Your task to perform on an android device: open app "Pinterest" (install if not already installed) and enter user name: "Switzerland@yahoo.com" and password: "arithmetics" Image 0: 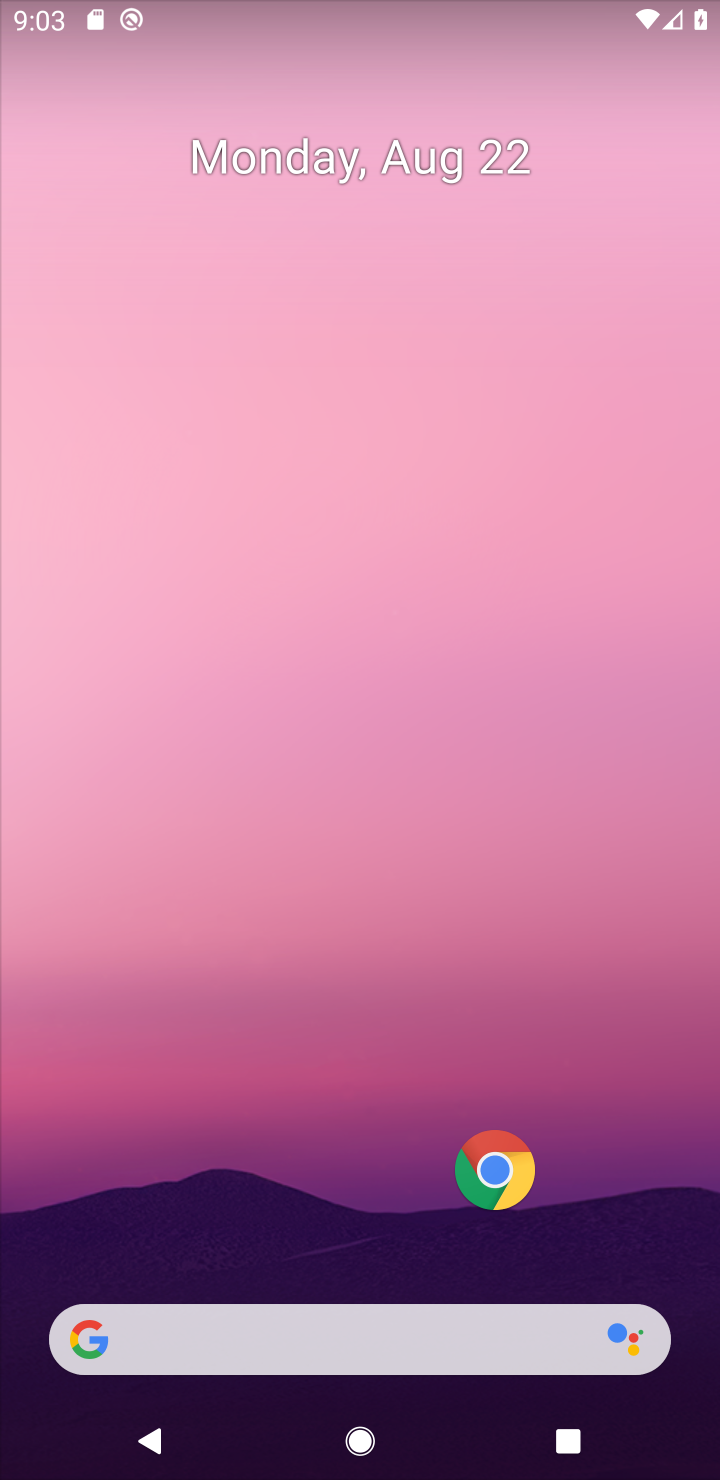
Step 0: drag from (261, 1249) to (422, 92)
Your task to perform on an android device: open app "Pinterest" (install if not already installed) and enter user name: "Switzerland@yahoo.com" and password: "arithmetics" Image 1: 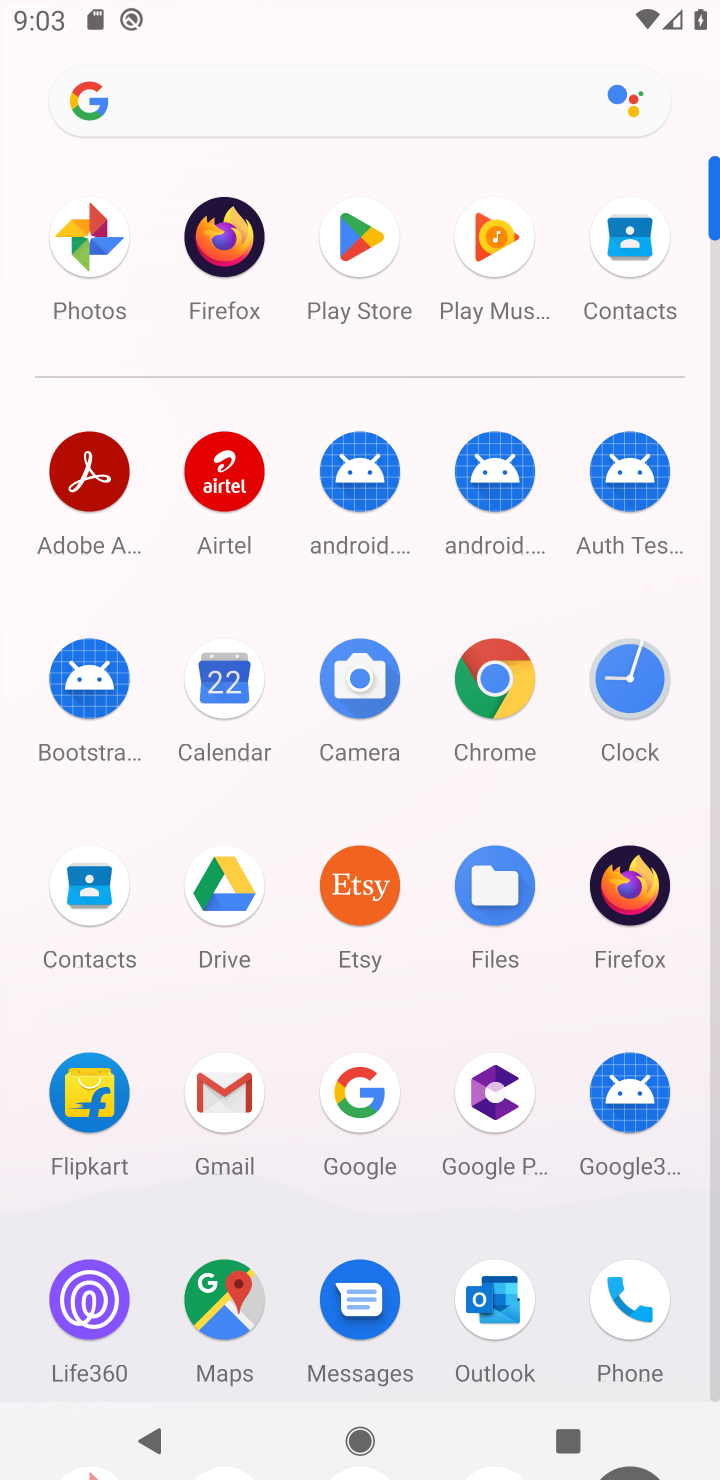
Step 1: click (333, 240)
Your task to perform on an android device: open app "Pinterest" (install if not already installed) and enter user name: "Switzerland@yahoo.com" and password: "arithmetics" Image 2: 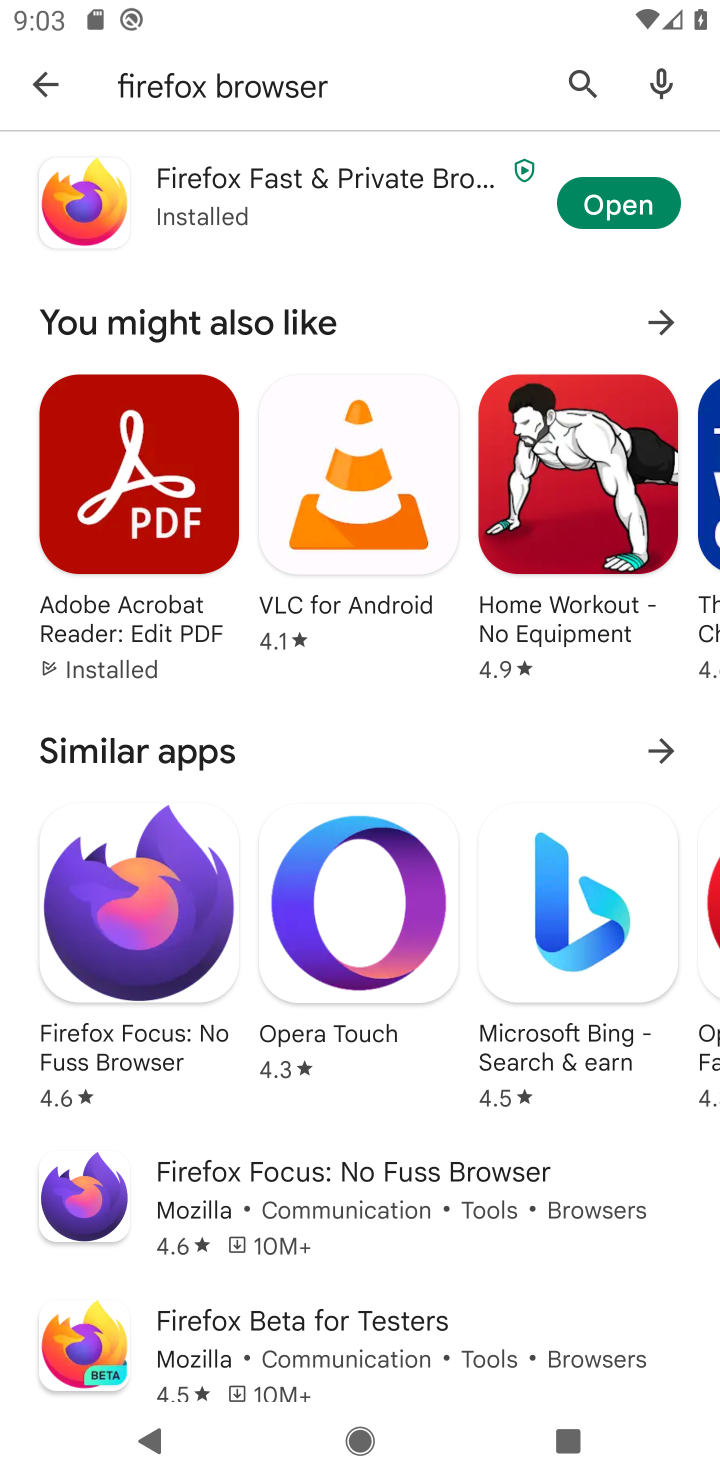
Step 2: click (565, 74)
Your task to perform on an android device: open app "Pinterest" (install if not already installed) and enter user name: "Switzerland@yahoo.com" and password: "arithmetics" Image 3: 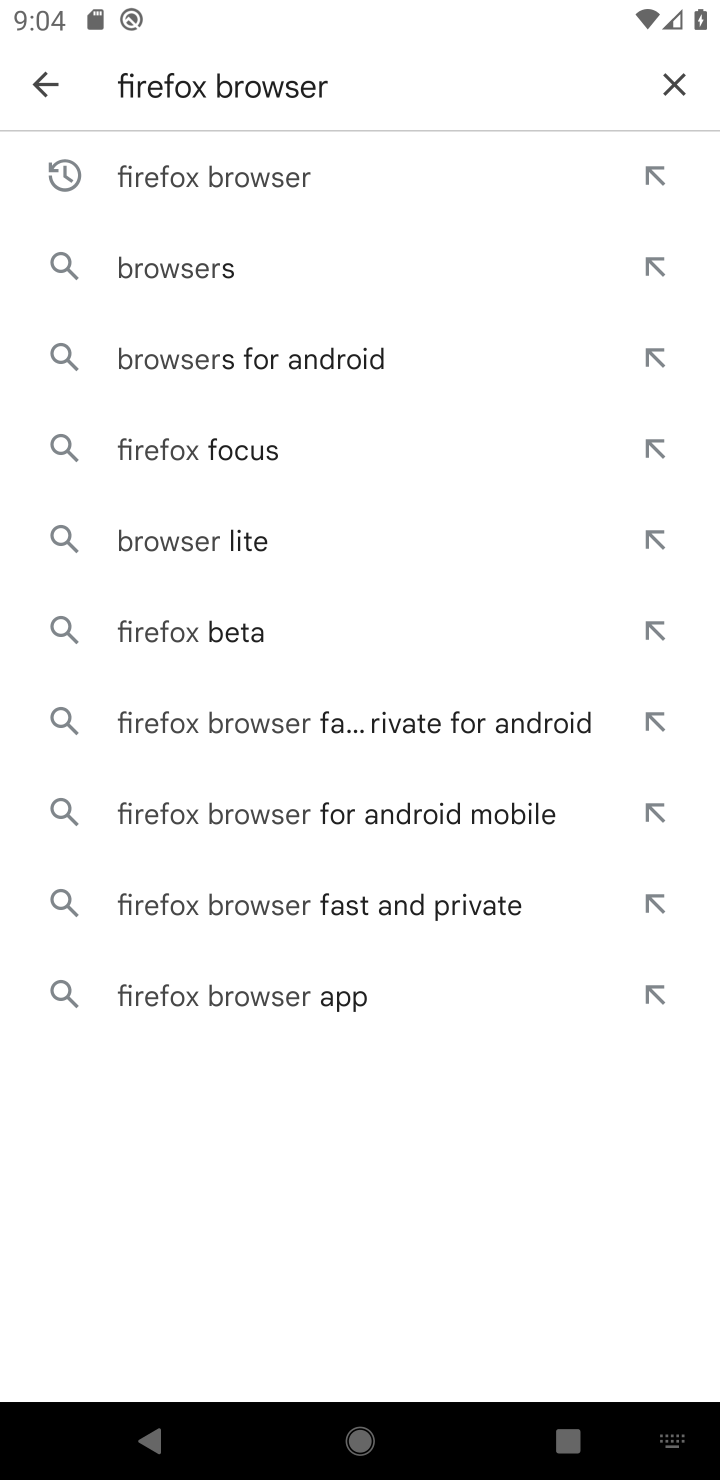
Step 3: click (659, 81)
Your task to perform on an android device: open app "Pinterest" (install if not already installed) and enter user name: "Switzerland@yahoo.com" and password: "arithmetics" Image 4: 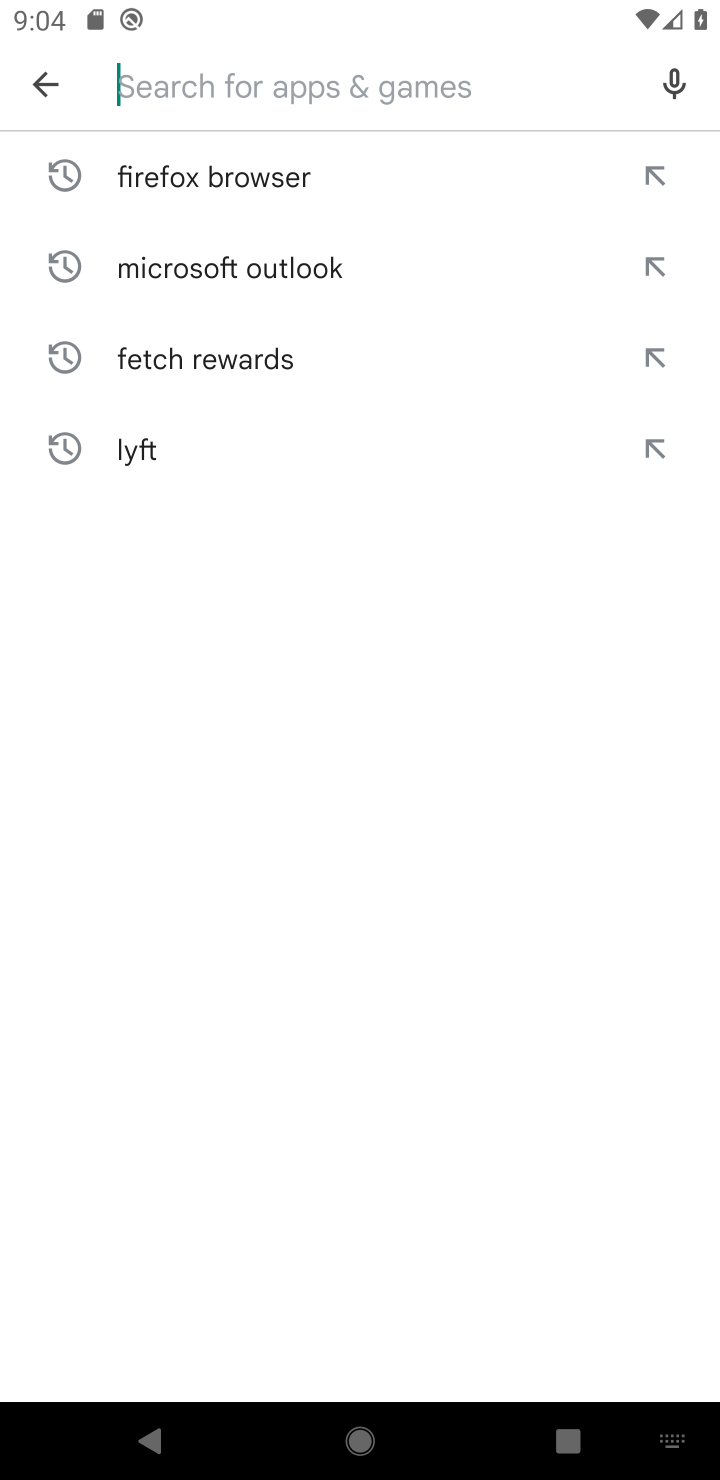
Step 4: click (400, 84)
Your task to perform on an android device: open app "Pinterest" (install if not already installed) and enter user name: "Switzerland@yahoo.com" and password: "arithmetics" Image 5: 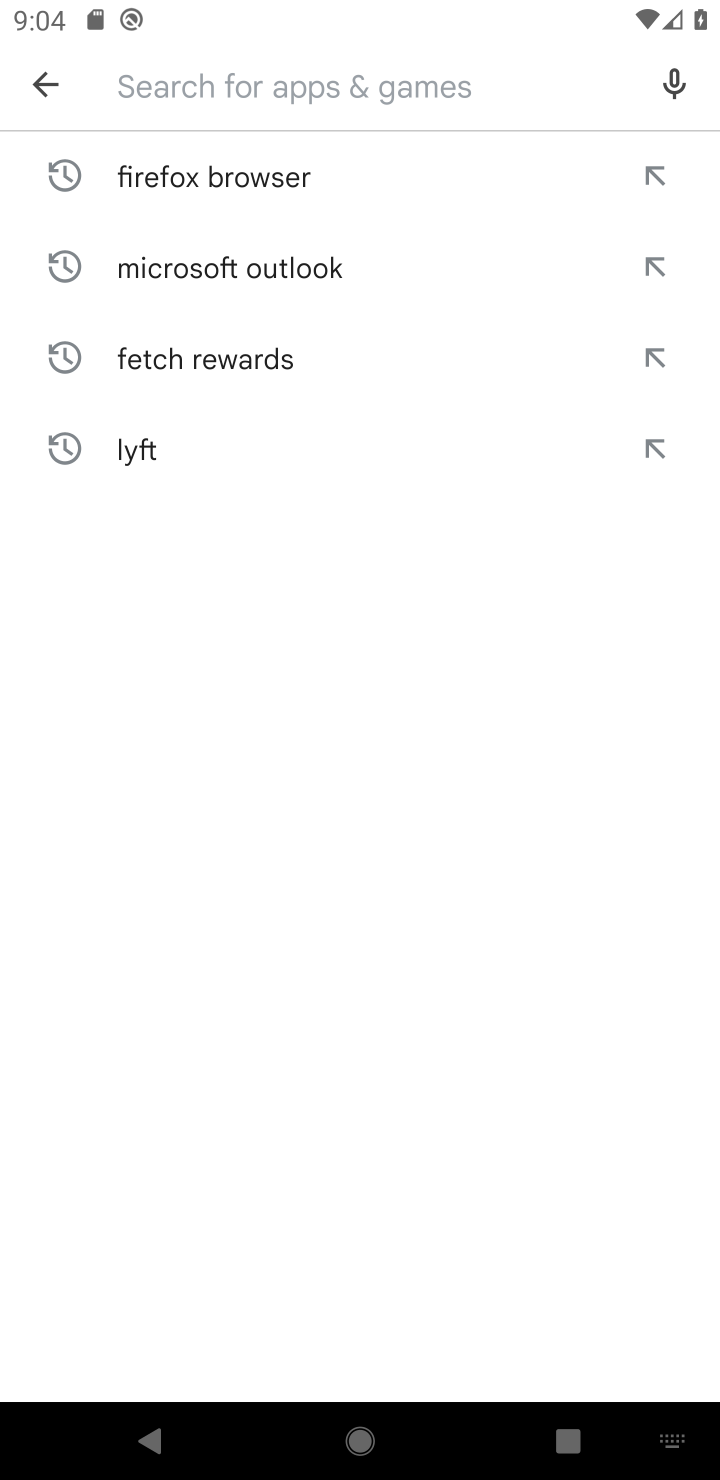
Step 5: type "Pinterest"
Your task to perform on an android device: open app "Pinterest" (install if not already installed) and enter user name: "Switzerland@yahoo.com" and password: "arithmetics" Image 6: 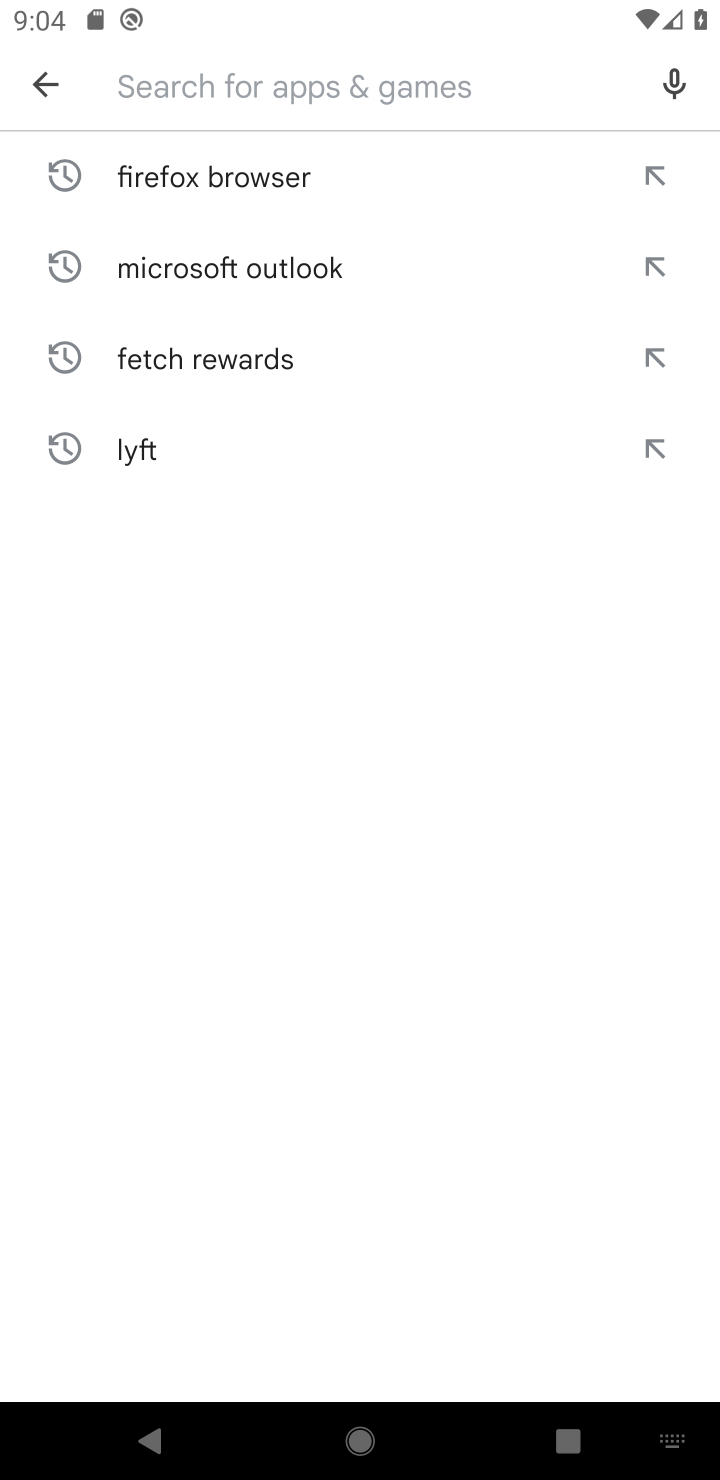
Step 6: click (389, 925)
Your task to perform on an android device: open app "Pinterest" (install if not already installed) and enter user name: "Switzerland@yahoo.com" and password: "arithmetics" Image 7: 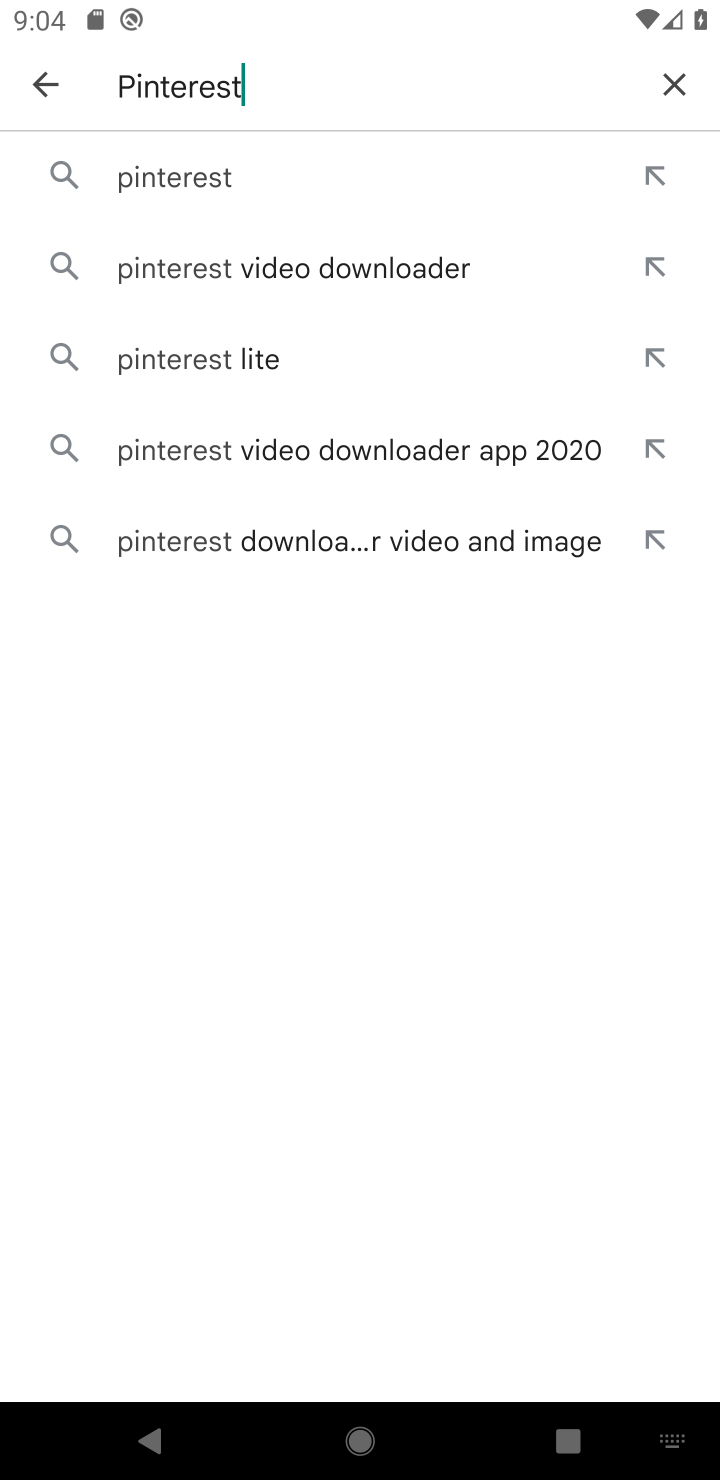
Step 7: click (181, 166)
Your task to perform on an android device: open app "Pinterest" (install if not already installed) and enter user name: "Switzerland@yahoo.com" and password: "arithmetics" Image 8: 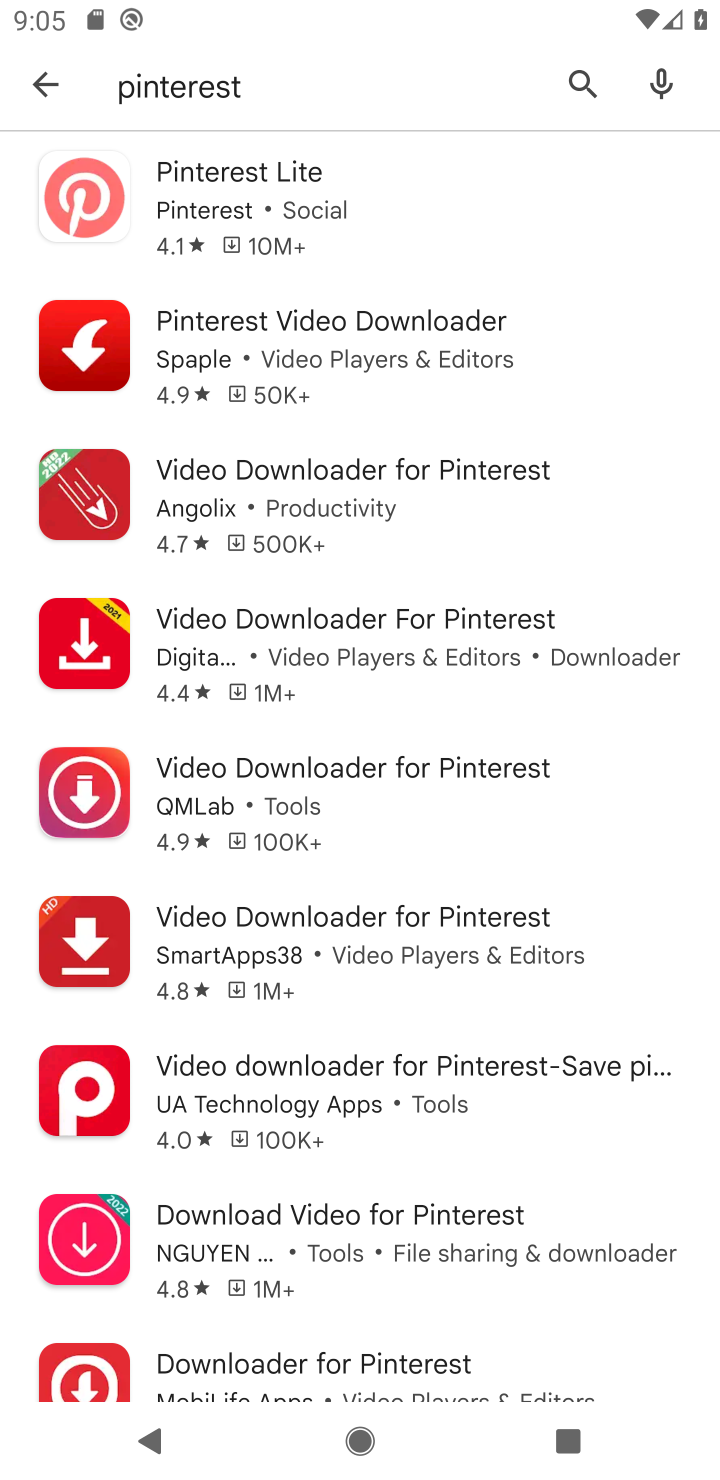
Step 8: click (392, 199)
Your task to perform on an android device: open app "Pinterest" (install if not already installed) and enter user name: "Switzerland@yahoo.com" and password: "arithmetics" Image 9: 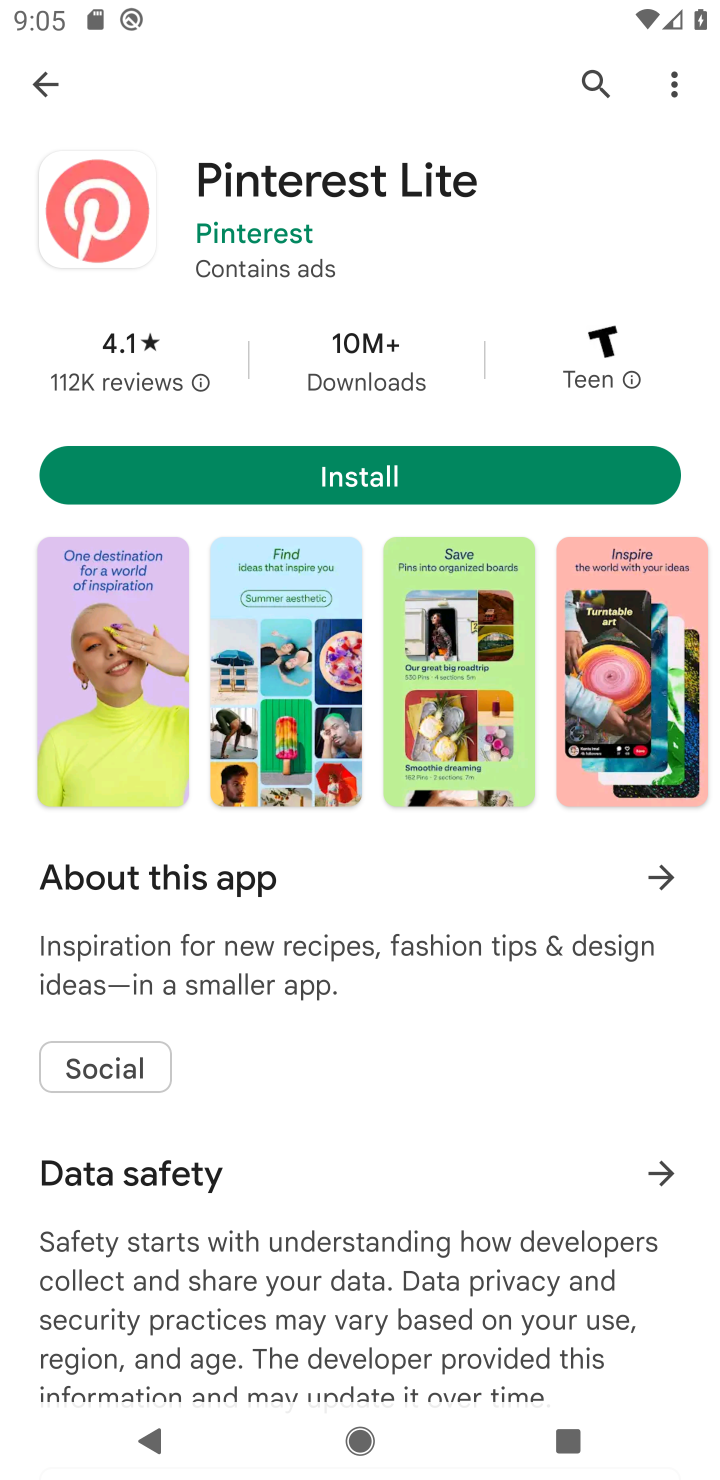
Step 9: click (362, 482)
Your task to perform on an android device: open app "Pinterest" (install if not already installed) and enter user name: "Switzerland@yahoo.com" and password: "arithmetics" Image 10: 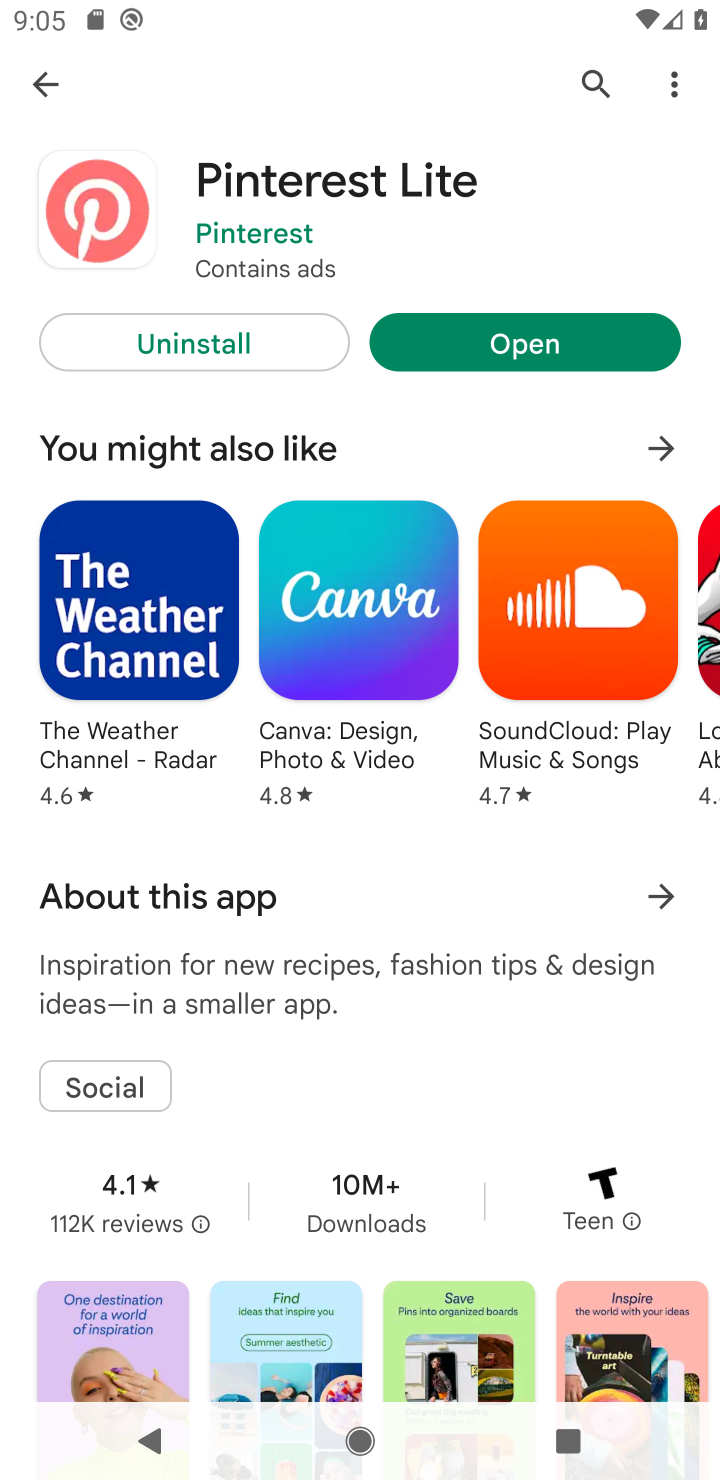
Step 10: click (597, 336)
Your task to perform on an android device: open app "Pinterest" (install if not already installed) and enter user name: "Switzerland@yahoo.com" and password: "arithmetics" Image 11: 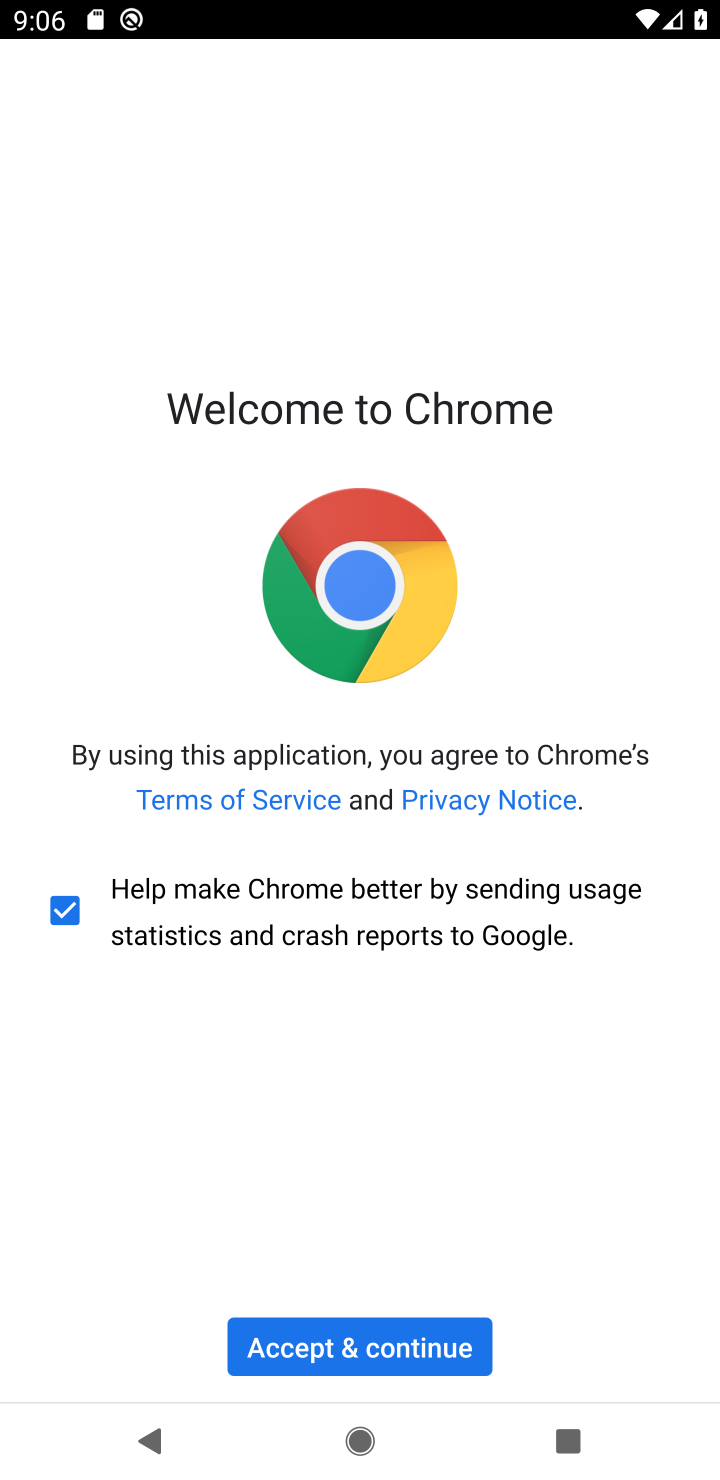
Step 11: click (339, 1328)
Your task to perform on an android device: open app "Pinterest" (install if not already installed) and enter user name: "Switzerland@yahoo.com" and password: "arithmetics" Image 12: 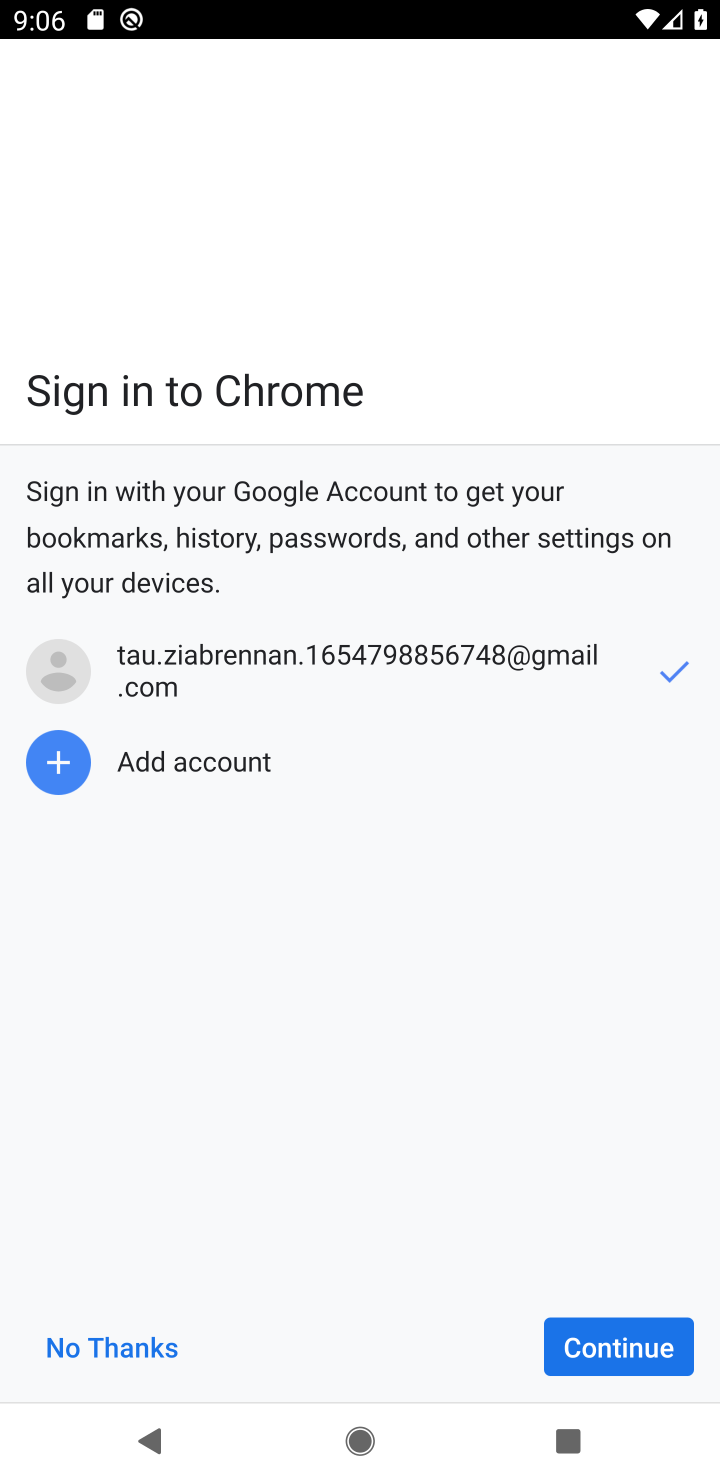
Step 12: click (66, 1340)
Your task to perform on an android device: open app "Pinterest" (install if not already installed) and enter user name: "Switzerland@yahoo.com" and password: "arithmetics" Image 13: 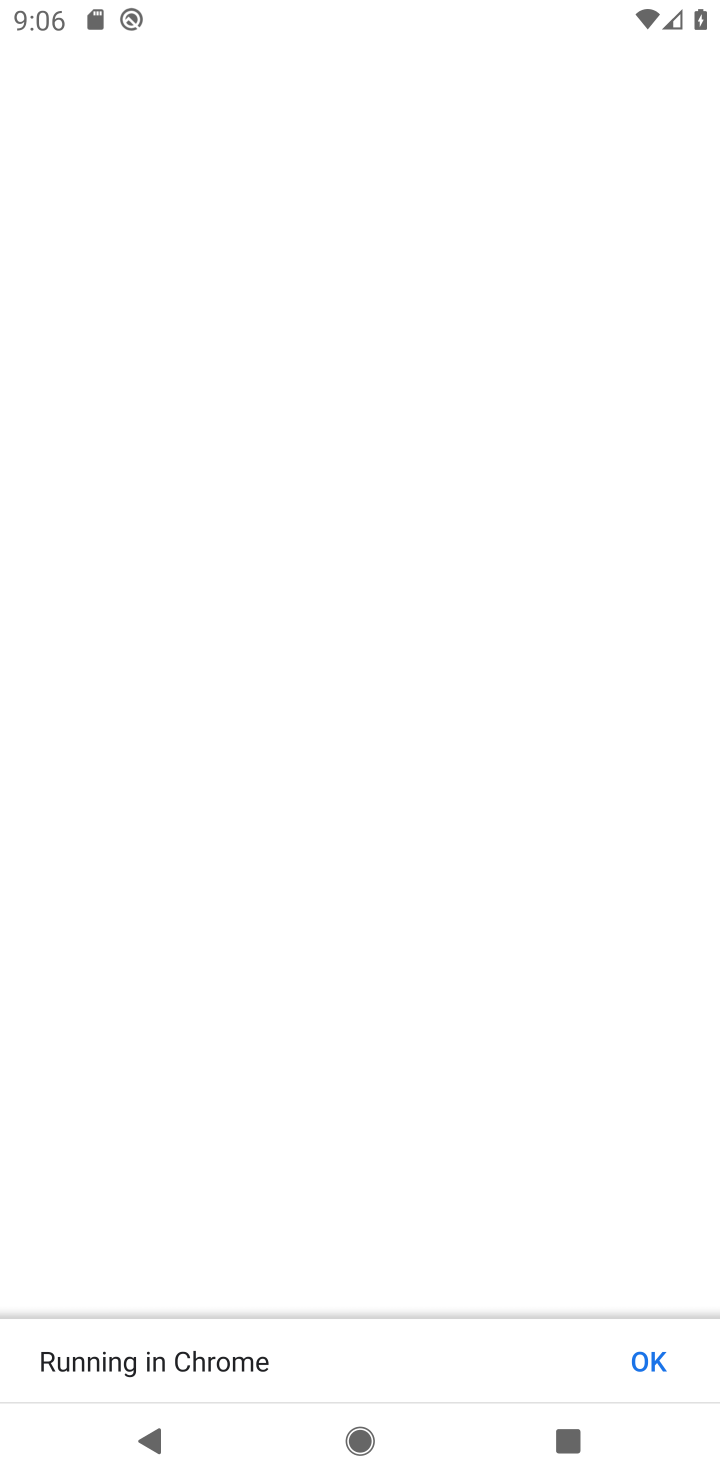
Step 13: press back button
Your task to perform on an android device: open app "Pinterest" (install if not already installed) and enter user name: "Switzerland@yahoo.com" and password: "arithmetics" Image 14: 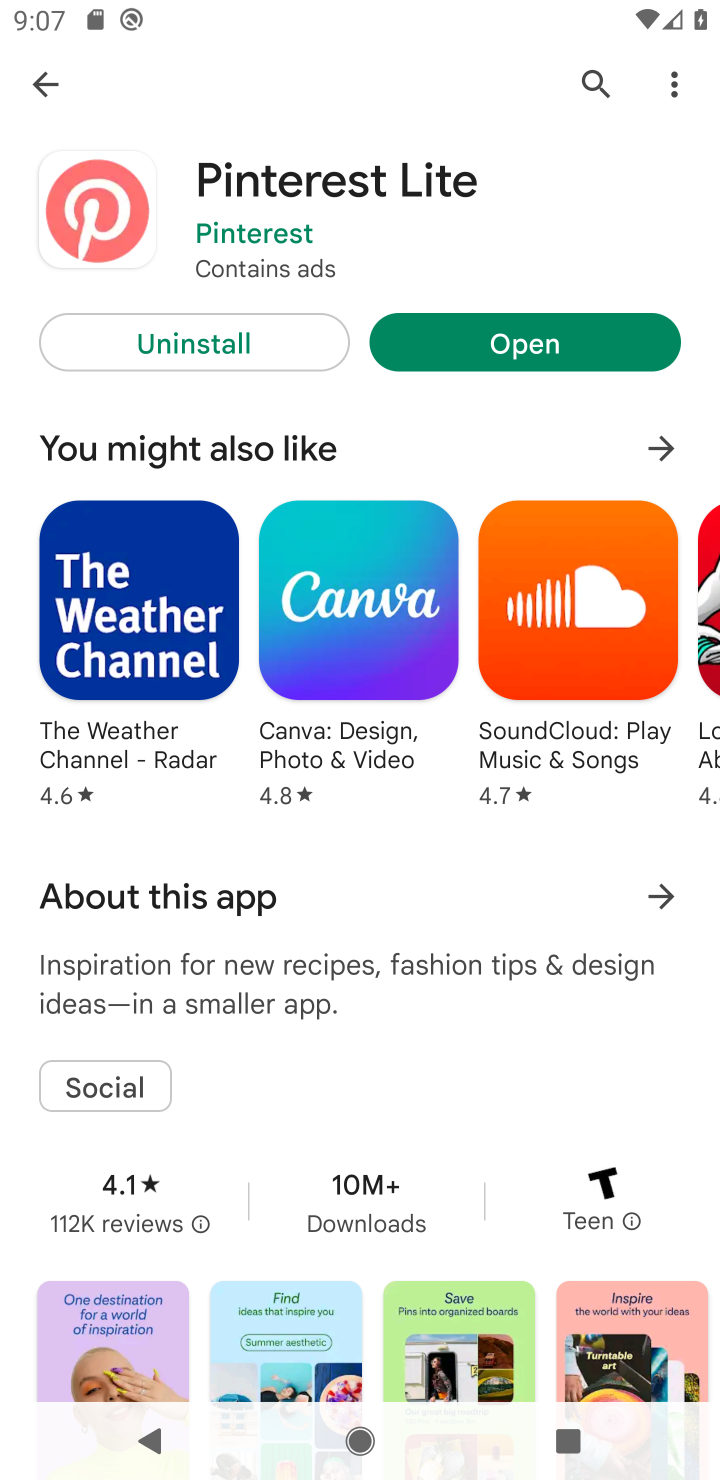
Step 14: click (597, 62)
Your task to perform on an android device: open app "Pinterest" (install if not already installed) and enter user name: "Switzerland@yahoo.com" and password: "arithmetics" Image 15: 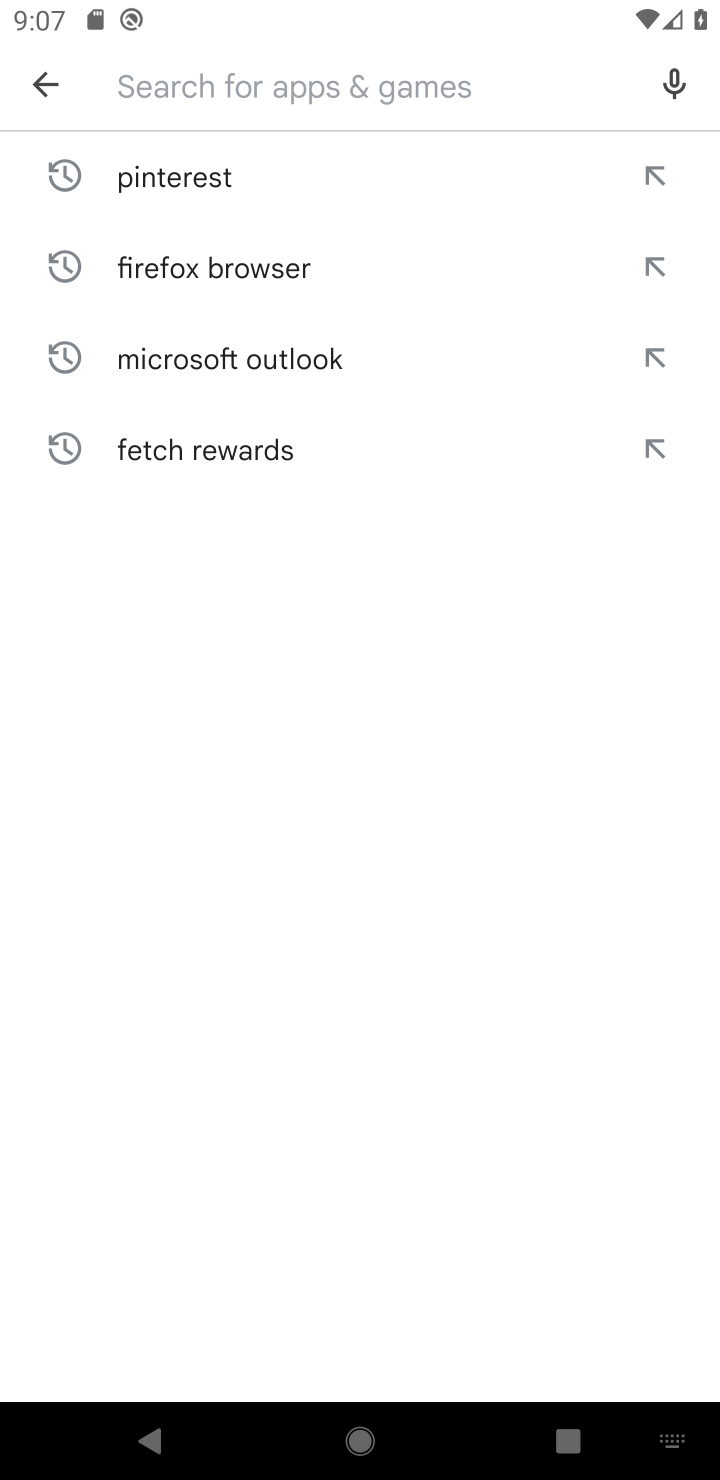
Step 15: click (298, 173)
Your task to perform on an android device: open app "Pinterest" (install if not already installed) and enter user name: "Switzerland@yahoo.com" and password: "arithmetics" Image 16: 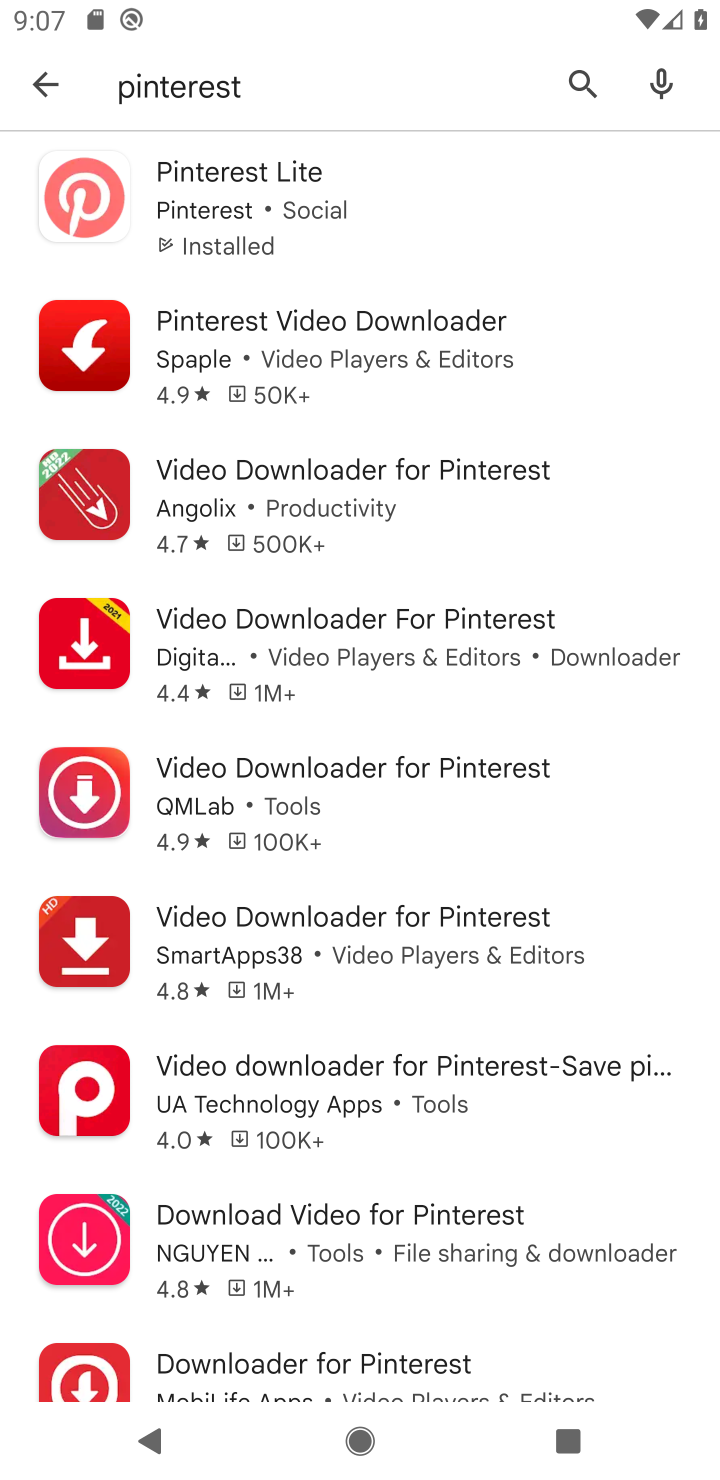
Step 16: click (280, 201)
Your task to perform on an android device: open app "Pinterest" (install if not already installed) and enter user name: "Switzerland@yahoo.com" and password: "arithmetics" Image 17: 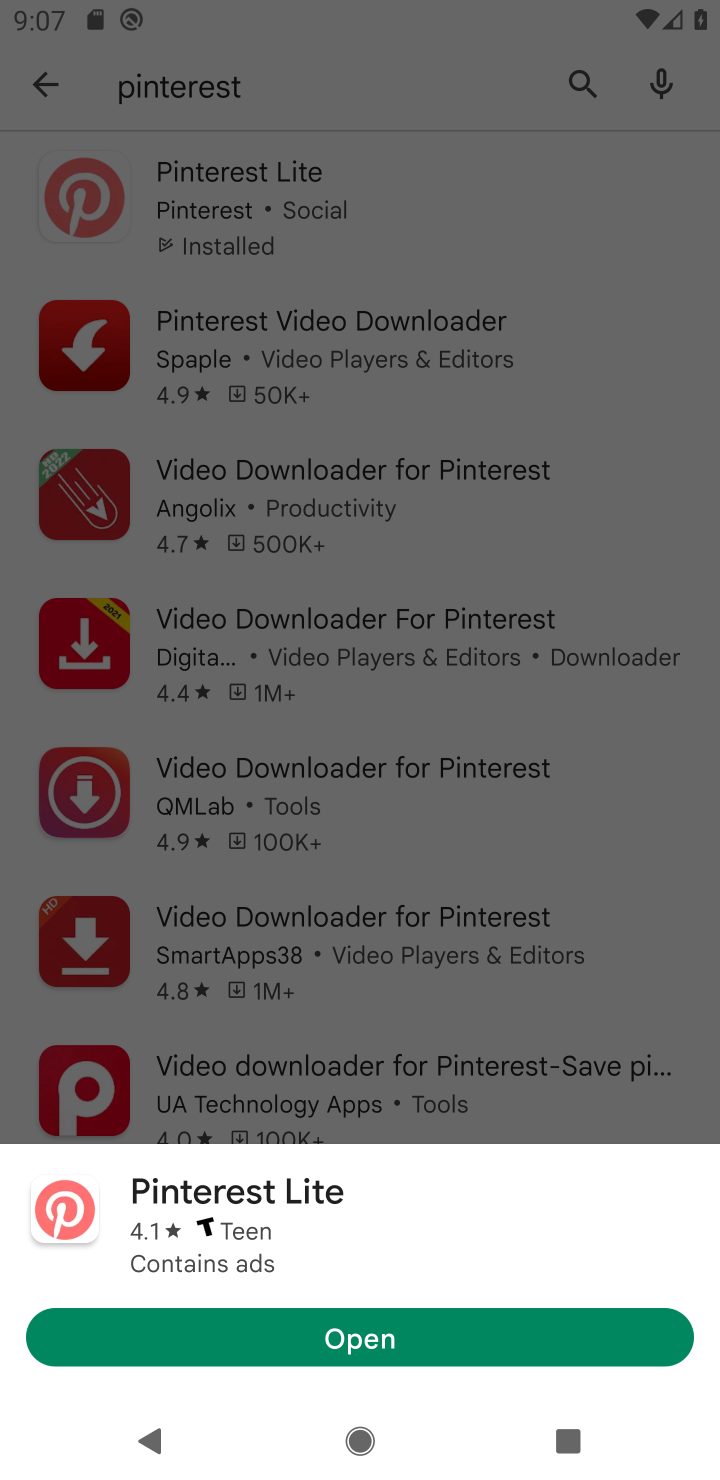
Step 17: click (337, 1356)
Your task to perform on an android device: open app "Pinterest" (install if not already installed) and enter user name: "Switzerland@yahoo.com" and password: "arithmetics" Image 18: 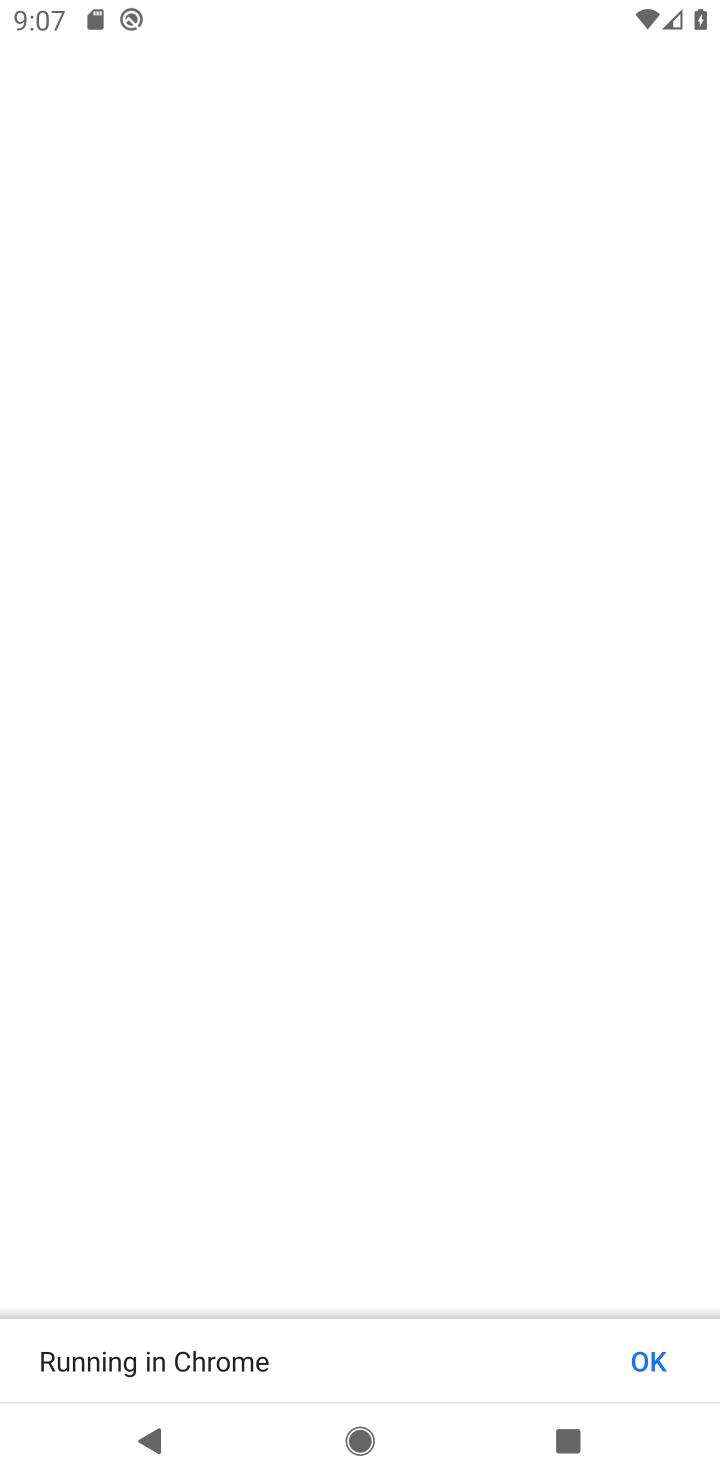
Step 18: click (665, 1350)
Your task to perform on an android device: open app "Pinterest" (install if not already installed) and enter user name: "Switzerland@yahoo.com" and password: "arithmetics" Image 19: 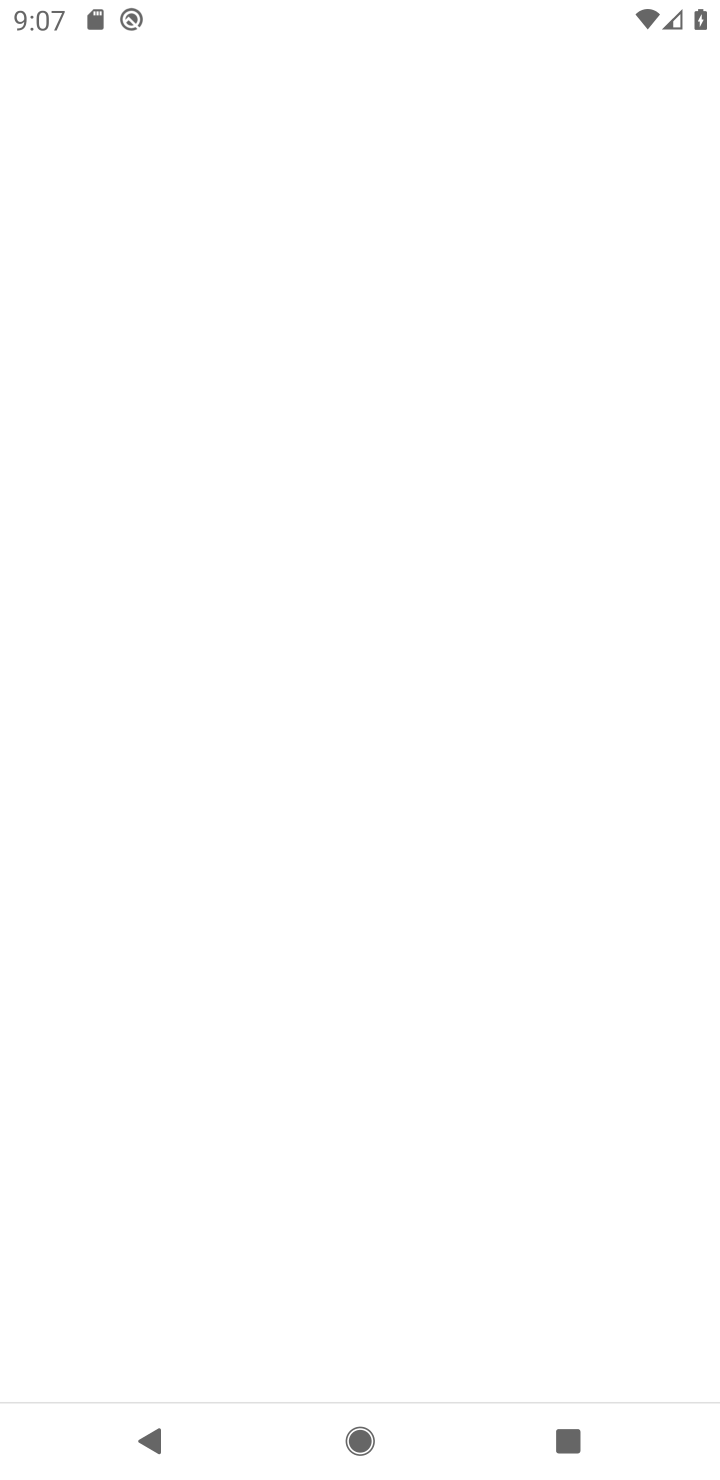
Step 19: task complete